Your task to perform on an android device: delete browsing data in the chrome app Image 0: 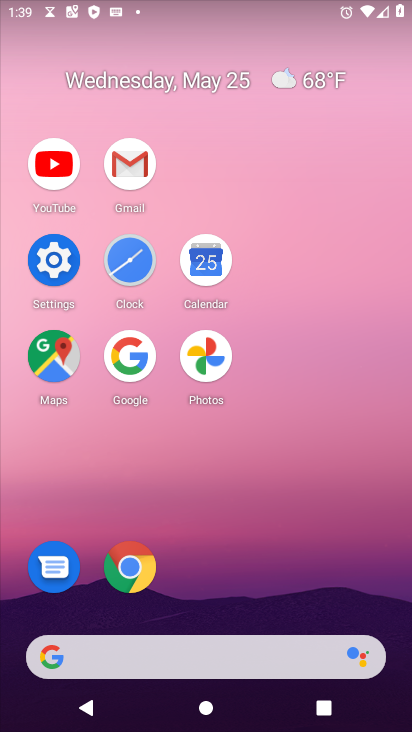
Step 0: click (158, 560)
Your task to perform on an android device: delete browsing data in the chrome app Image 1: 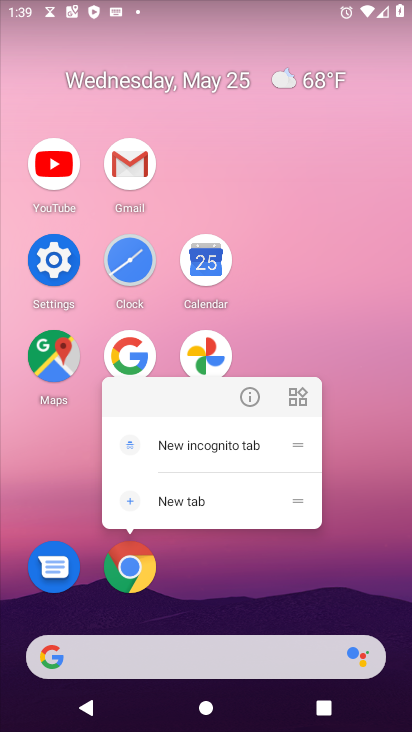
Step 1: click (131, 577)
Your task to perform on an android device: delete browsing data in the chrome app Image 2: 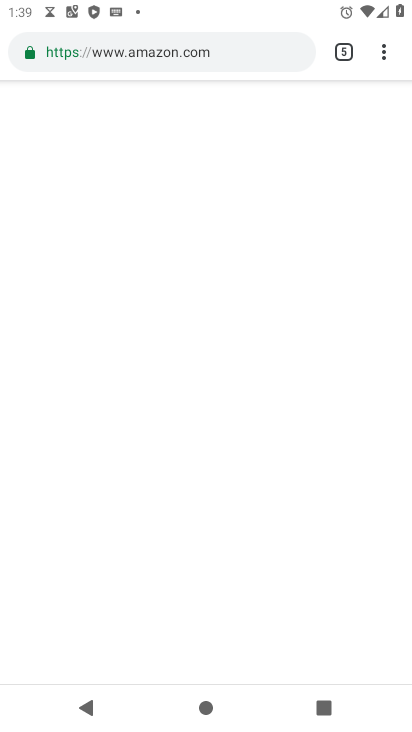
Step 2: click (382, 48)
Your task to perform on an android device: delete browsing data in the chrome app Image 3: 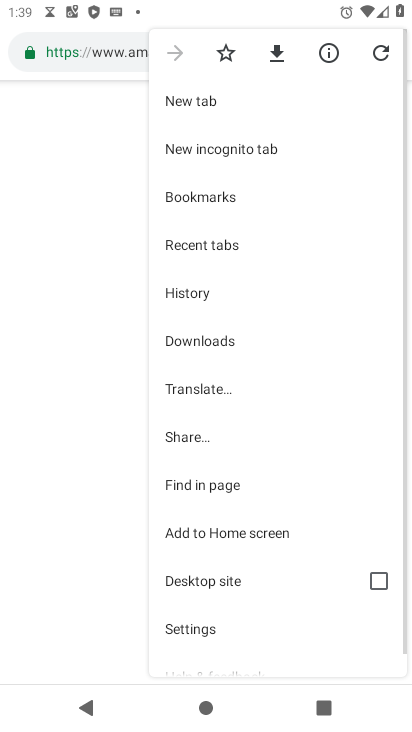
Step 3: drag from (257, 555) to (270, 239)
Your task to perform on an android device: delete browsing data in the chrome app Image 4: 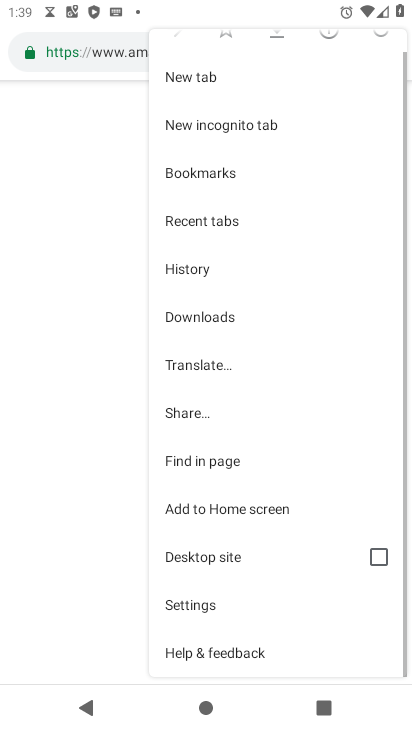
Step 4: click (233, 611)
Your task to perform on an android device: delete browsing data in the chrome app Image 5: 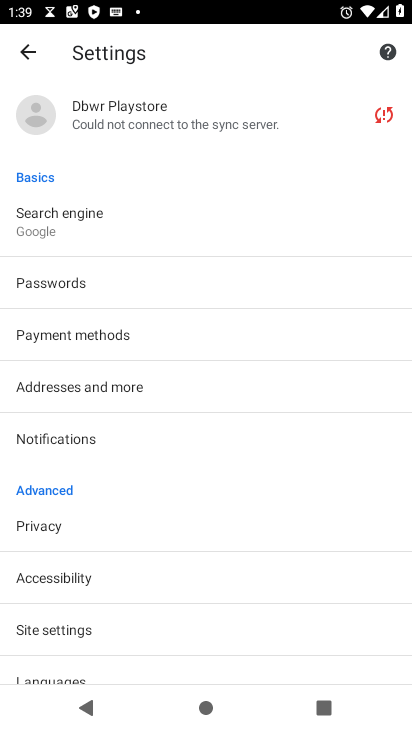
Step 5: click (116, 536)
Your task to perform on an android device: delete browsing data in the chrome app Image 6: 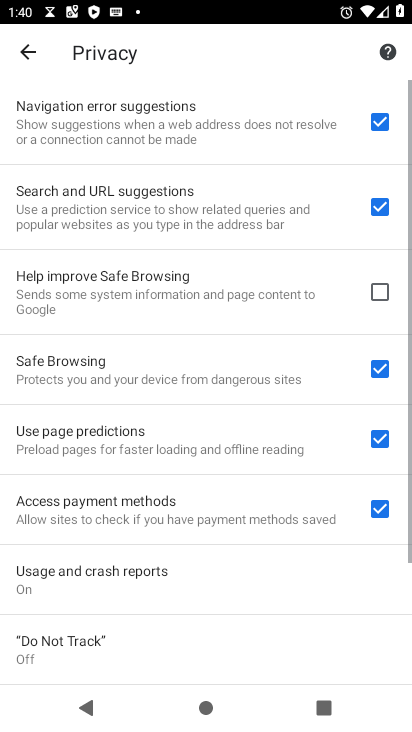
Step 6: drag from (241, 515) to (274, 148)
Your task to perform on an android device: delete browsing data in the chrome app Image 7: 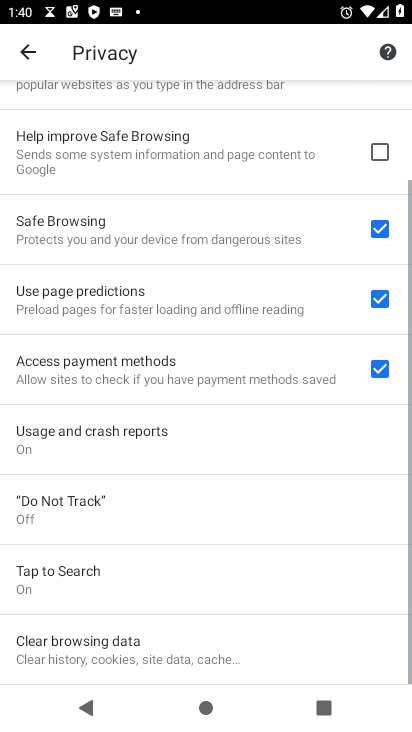
Step 7: drag from (217, 580) to (226, 274)
Your task to perform on an android device: delete browsing data in the chrome app Image 8: 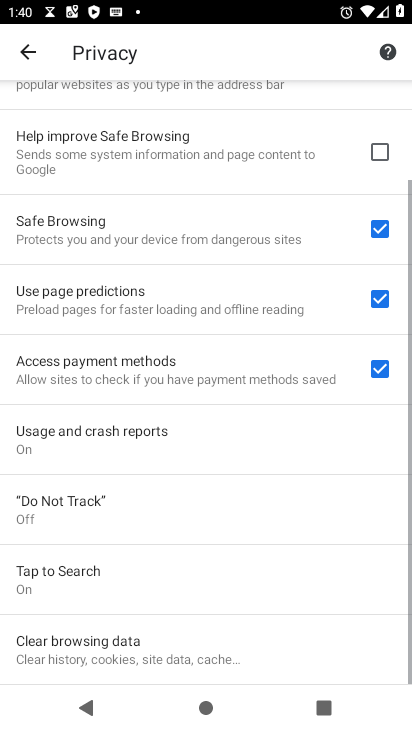
Step 8: click (186, 649)
Your task to perform on an android device: delete browsing data in the chrome app Image 9: 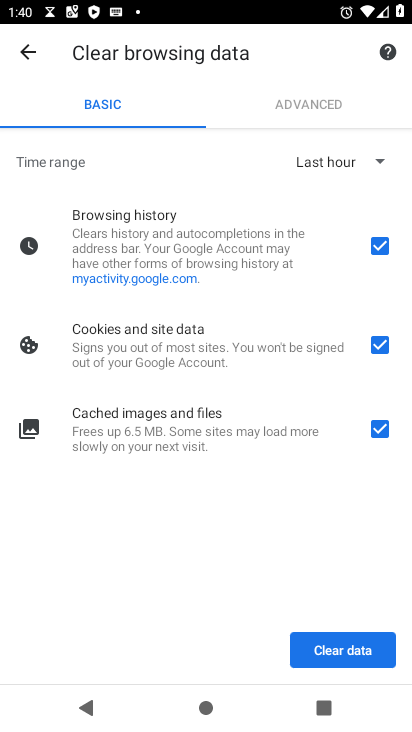
Step 9: click (319, 661)
Your task to perform on an android device: delete browsing data in the chrome app Image 10: 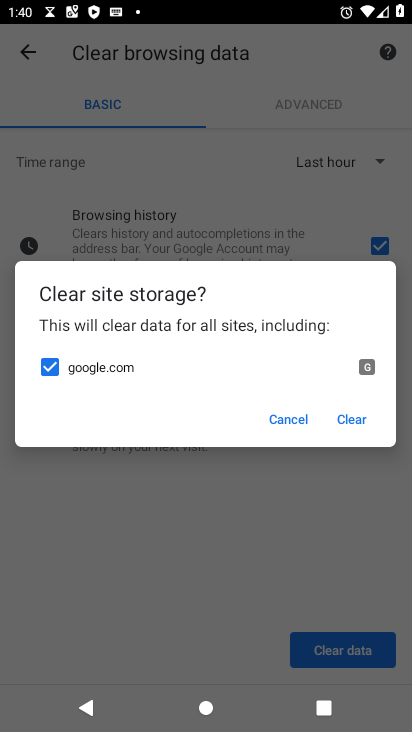
Step 10: click (364, 419)
Your task to perform on an android device: delete browsing data in the chrome app Image 11: 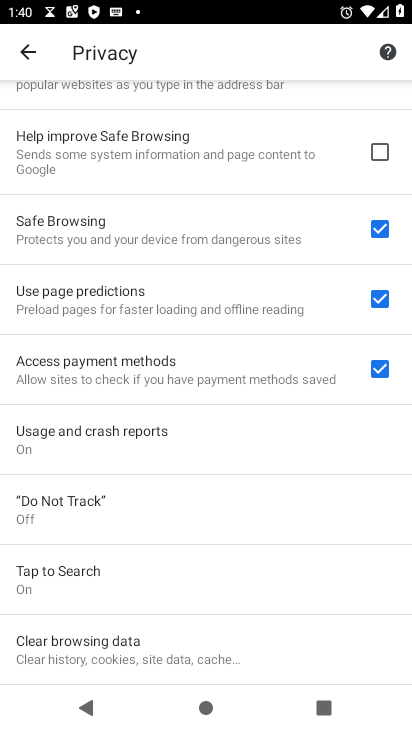
Step 11: task complete